Your task to perform on an android device: turn on wifi Image 0: 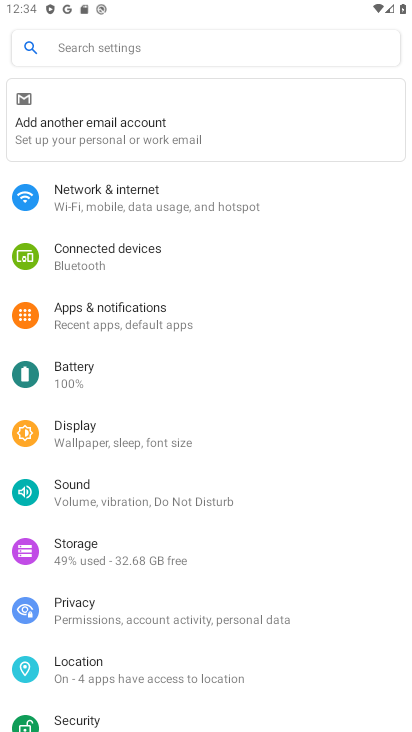
Step 0: click (90, 202)
Your task to perform on an android device: turn on wifi Image 1: 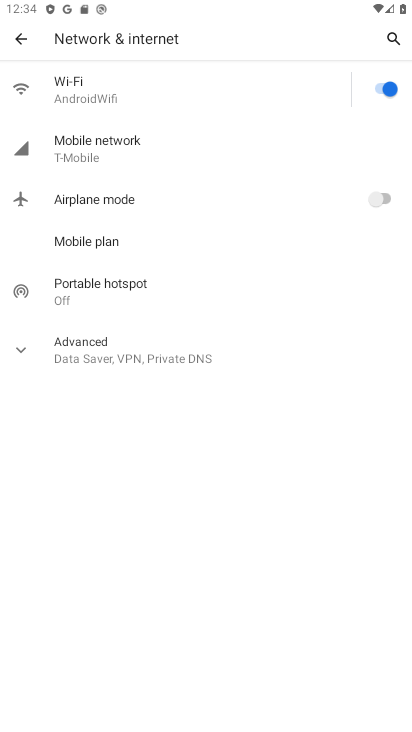
Step 1: task complete